Your task to perform on an android device: Is it going to rain tomorrow? Image 0: 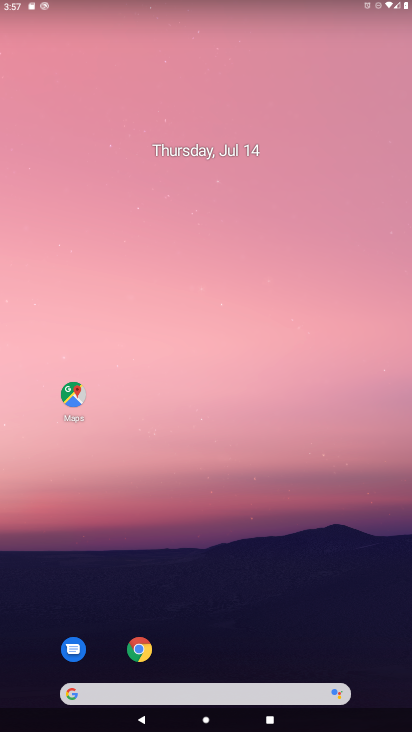
Step 0: drag from (193, 596) to (192, 71)
Your task to perform on an android device: Is it going to rain tomorrow? Image 1: 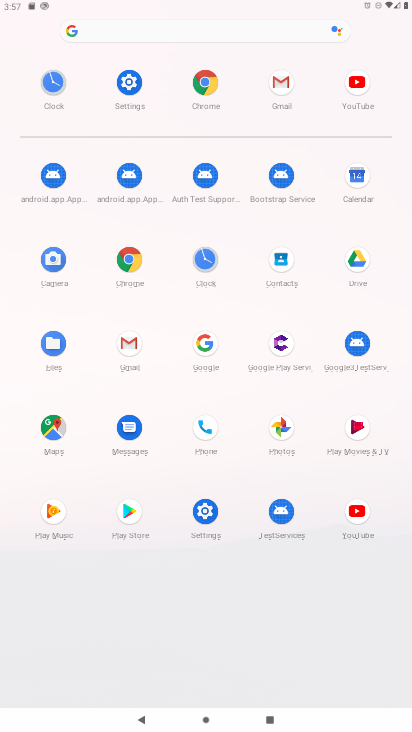
Step 1: click (178, 28)
Your task to perform on an android device: Is it going to rain tomorrow? Image 2: 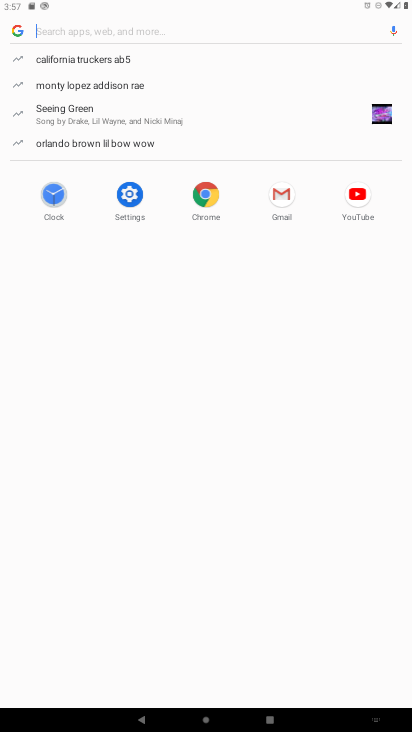
Step 2: type "weather"
Your task to perform on an android device: Is it going to rain tomorrow? Image 3: 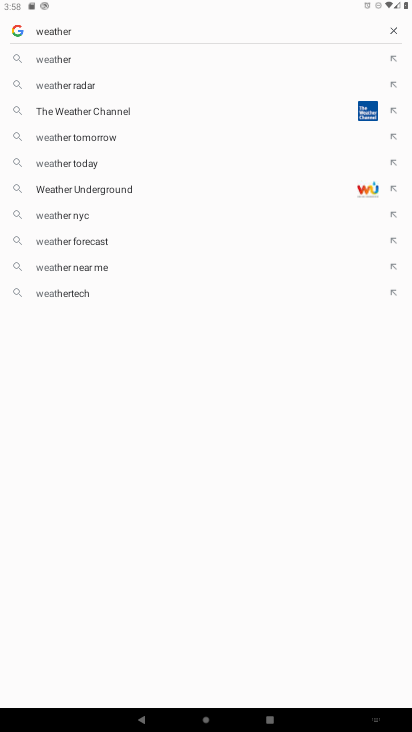
Step 3: click (64, 59)
Your task to perform on an android device: Is it going to rain tomorrow? Image 4: 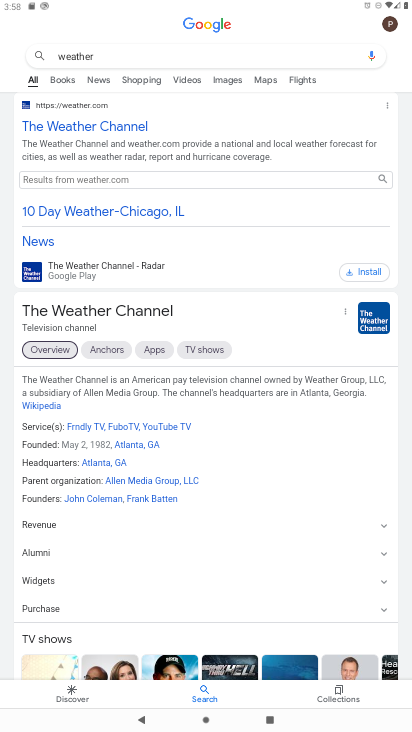
Step 4: click (134, 134)
Your task to perform on an android device: Is it going to rain tomorrow? Image 5: 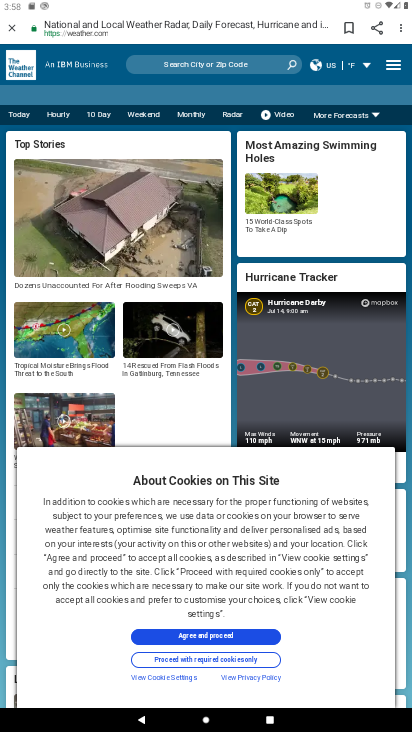
Step 5: task complete